Your task to perform on an android device: empty trash in google photos Image 0: 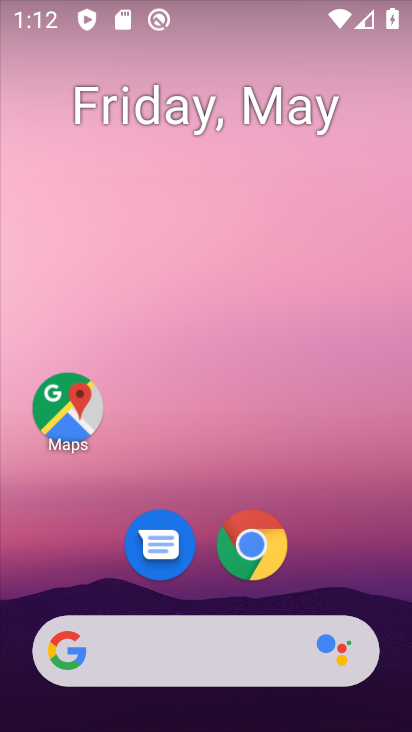
Step 0: drag from (352, 538) to (315, 264)
Your task to perform on an android device: empty trash in google photos Image 1: 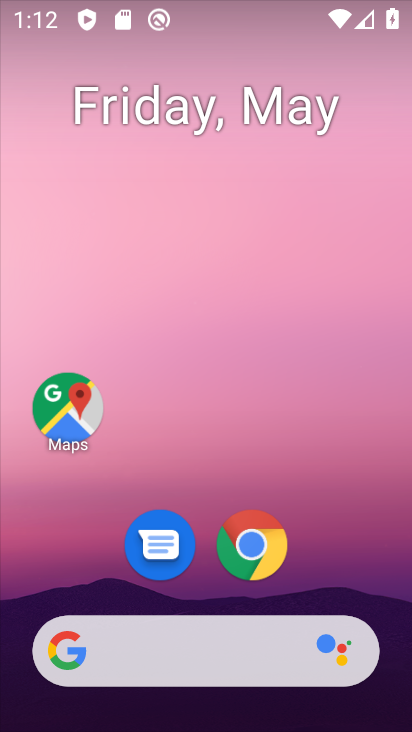
Step 1: drag from (339, 588) to (311, 232)
Your task to perform on an android device: empty trash in google photos Image 2: 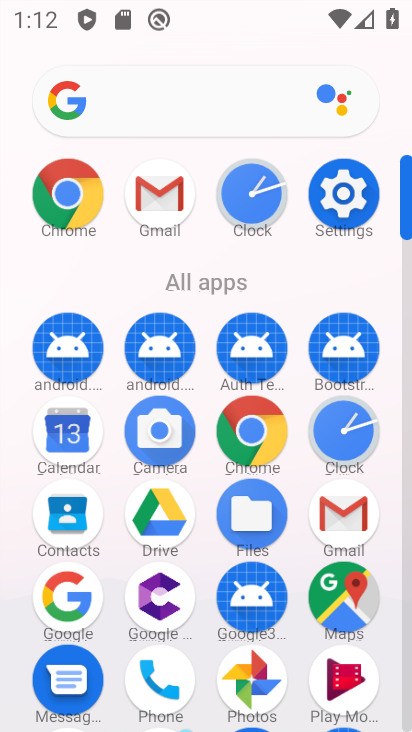
Step 2: click (226, 672)
Your task to perform on an android device: empty trash in google photos Image 3: 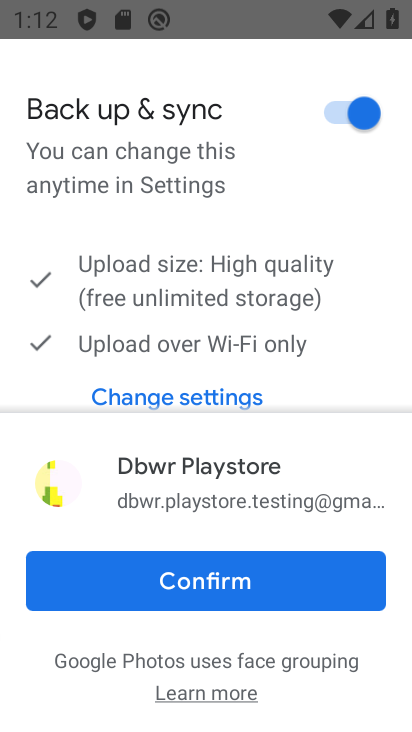
Step 3: click (274, 585)
Your task to perform on an android device: empty trash in google photos Image 4: 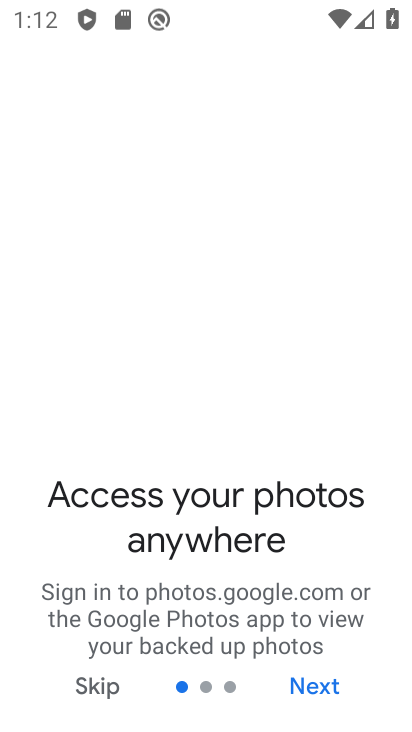
Step 4: click (307, 690)
Your task to perform on an android device: empty trash in google photos Image 5: 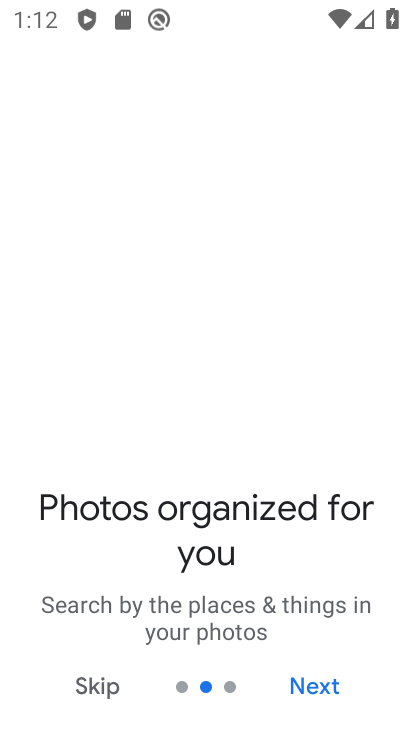
Step 5: click (307, 690)
Your task to perform on an android device: empty trash in google photos Image 6: 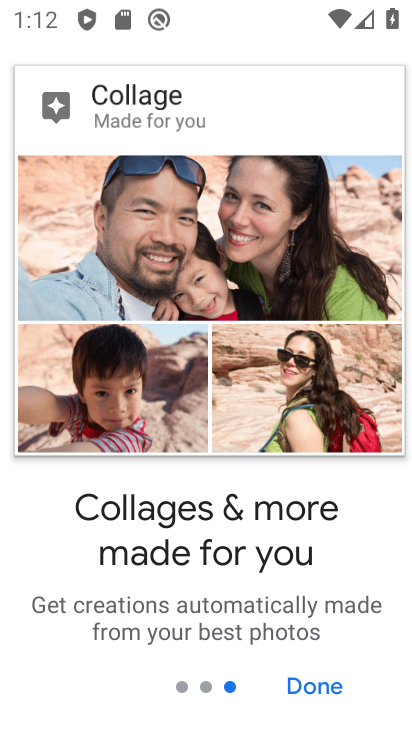
Step 6: click (307, 690)
Your task to perform on an android device: empty trash in google photos Image 7: 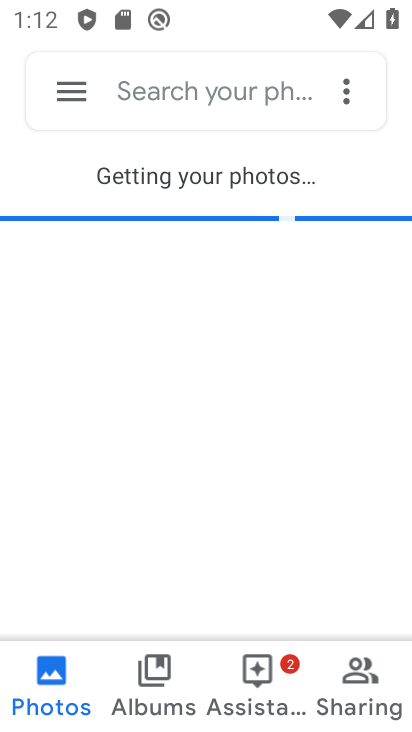
Step 7: click (66, 94)
Your task to perform on an android device: empty trash in google photos Image 8: 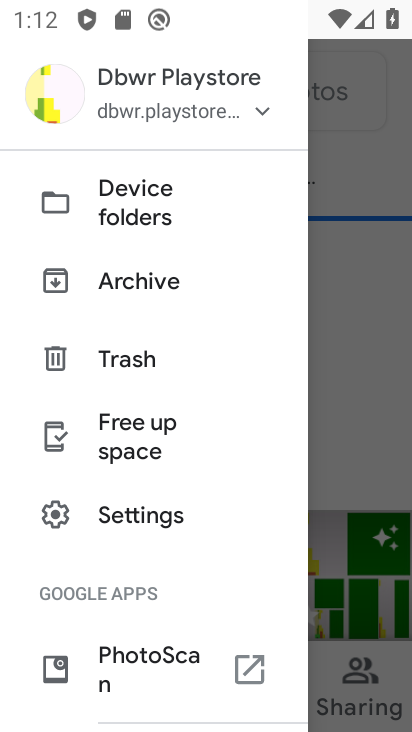
Step 8: click (173, 361)
Your task to perform on an android device: empty trash in google photos Image 9: 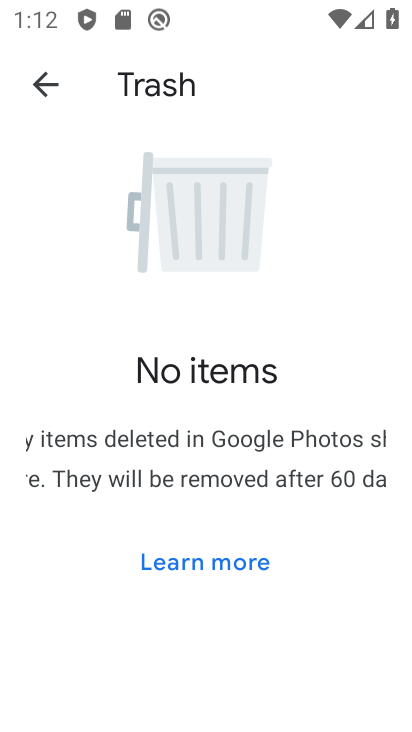
Step 9: task complete